Your task to perform on an android device: add a label to a message in the gmail app Image 0: 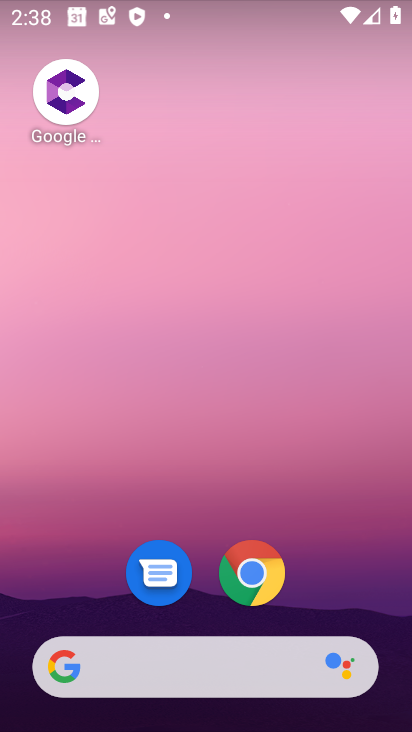
Step 0: drag from (336, 601) to (343, 1)
Your task to perform on an android device: add a label to a message in the gmail app Image 1: 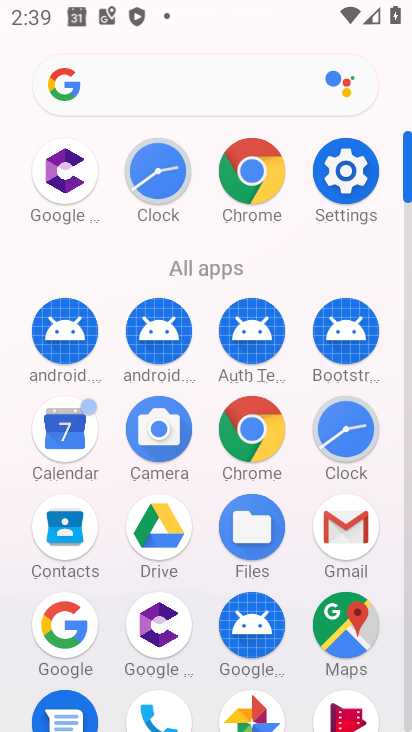
Step 1: click (350, 532)
Your task to perform on an android device: add a label to a message in the gmail app Image 2: 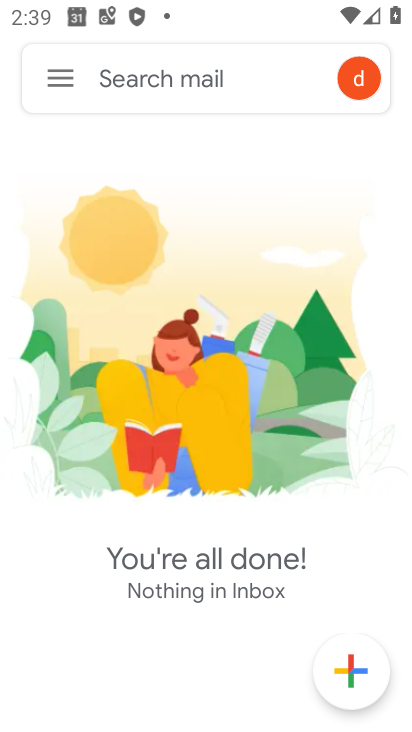
Step 2: click (54, 62)
Your task to perform on an android device: add a label to a message in the gmail app Image 3: 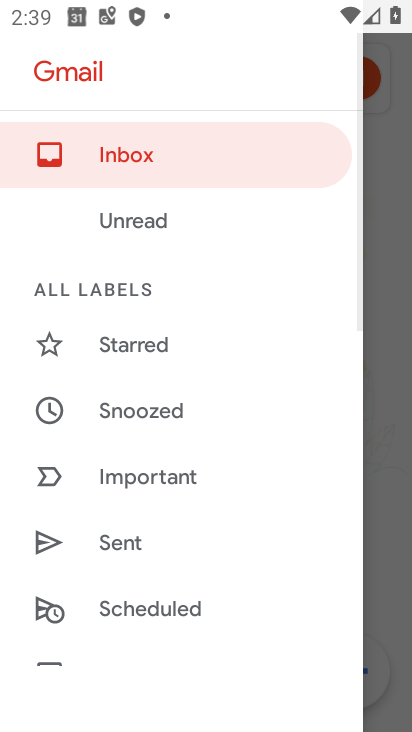
Step 3: drag from (144, 568) to (192, 222)
Your task to perform on an android device: add a label to a message in the gmail app Image 4: 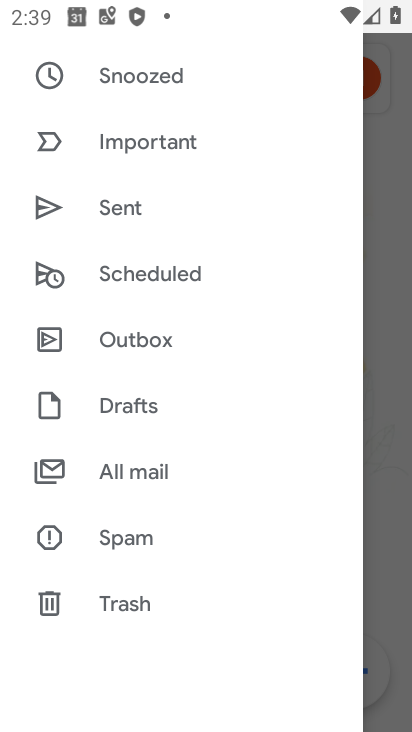
Step 4: drag from (146, 584) to (138, 286)
Your task to perform on an android device: add a label to a message in the gmail app Image 5: 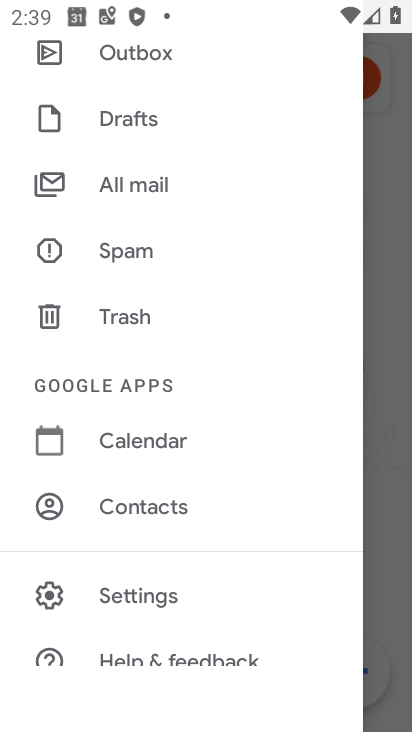
Step 5: click (143, 194)
Your task to perform on an android device: add a label to a message in the gmail app Image 6: 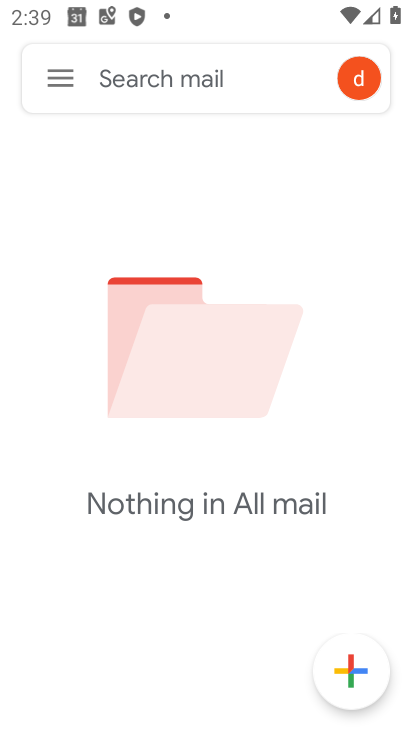
Step 6: task complete